Your task to perform on an android device: Open display settings Image 0: 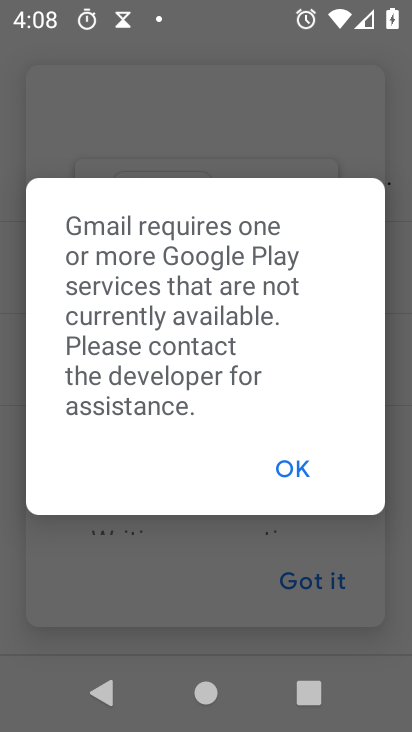
Step 0: press home button
Your task to perform on an android device: Open display settings Image 1: 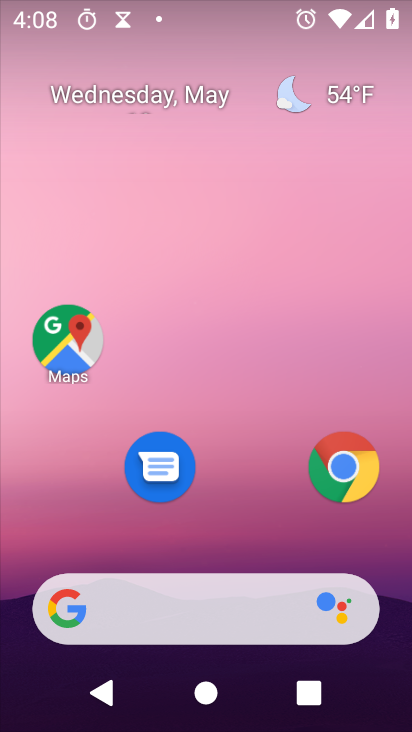
Step 1: drag from (292, 541) to (315, 73)
Your task to perform on an android device: Open display settings Image 2: 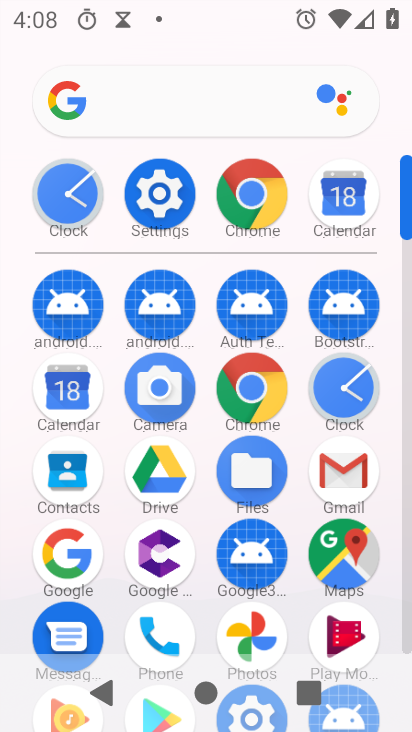
Step 2: click (171, 204)
Your task to perform on an android device: Open display settings Image 3: 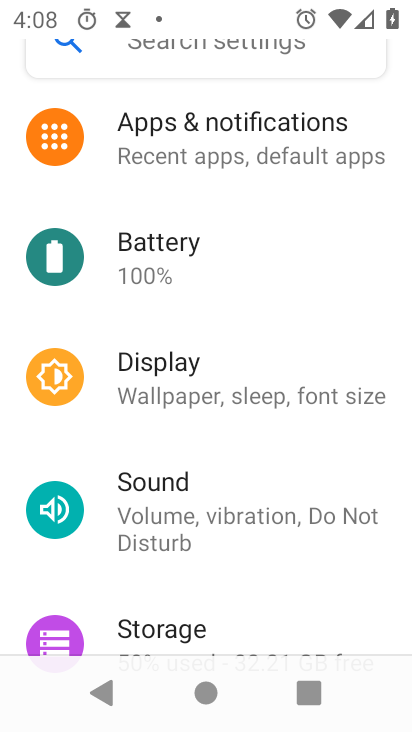
Step 3: click (237, 383)
Your task to perform on an android device: Open display settings Image 4: 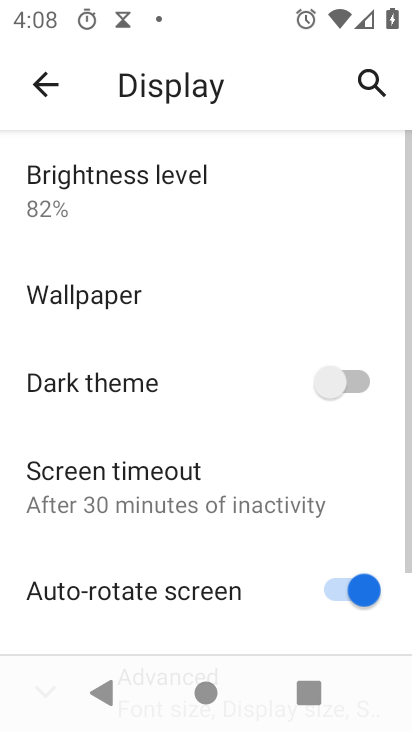
Step 4: task complete